Your task to perform on an android device: toggle sleep mode Image 0: 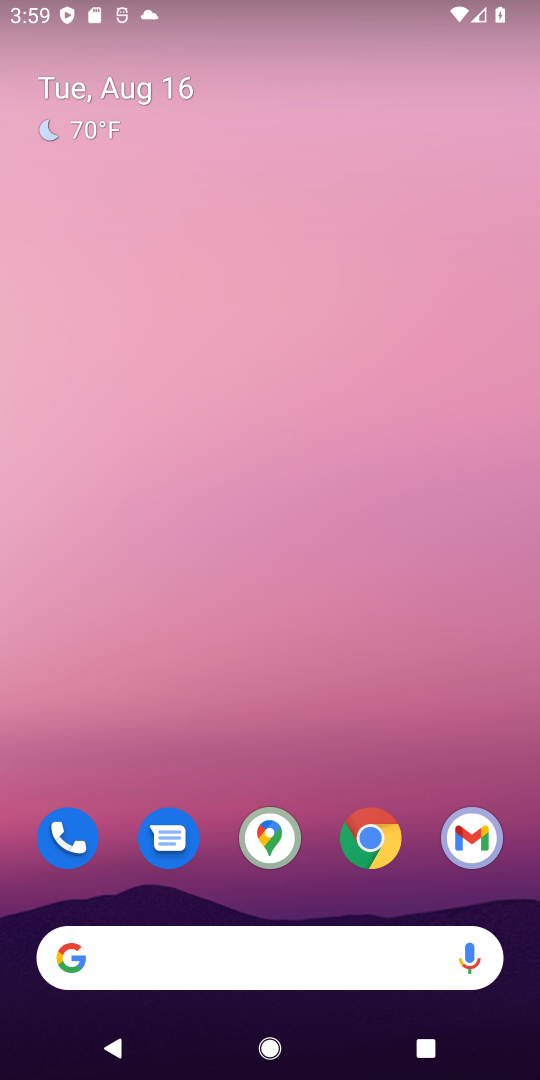
Step 0: drag from (332, 956) to (370, 82)
Your task to perform on an android device: toggle sleep mode Image 1: 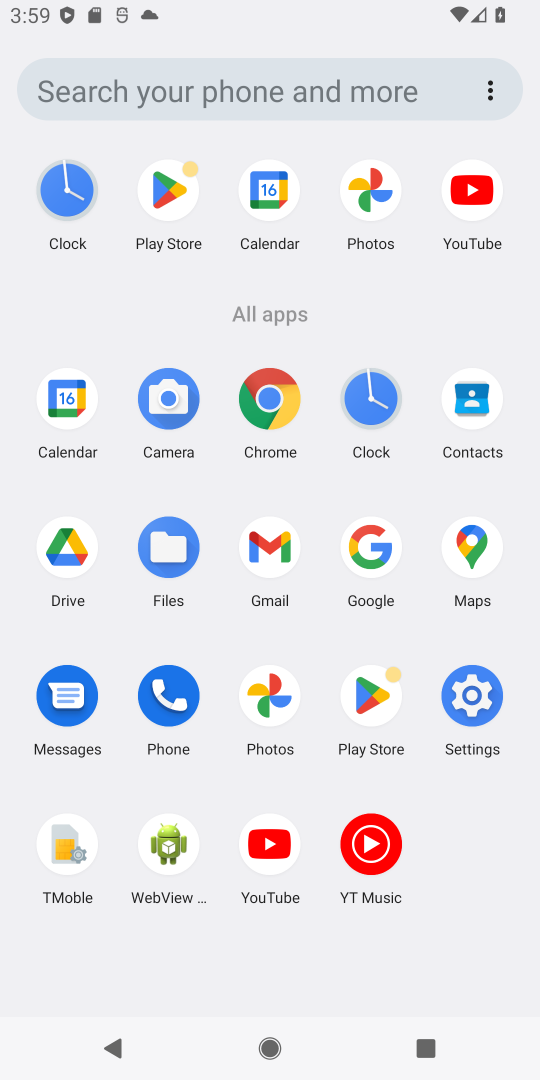
Step 1: click (465, 731)
Your task to perform on an android device: toggle sleep mode Image 2: 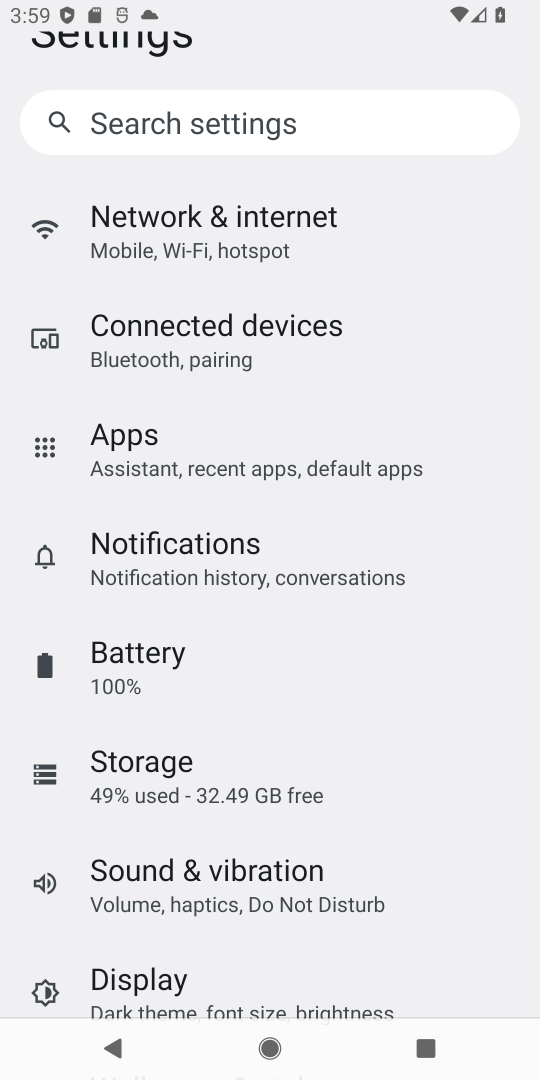
Step 2: click (174, 977)
Your task to perform on an android device: toggle sleep mode Image 3: 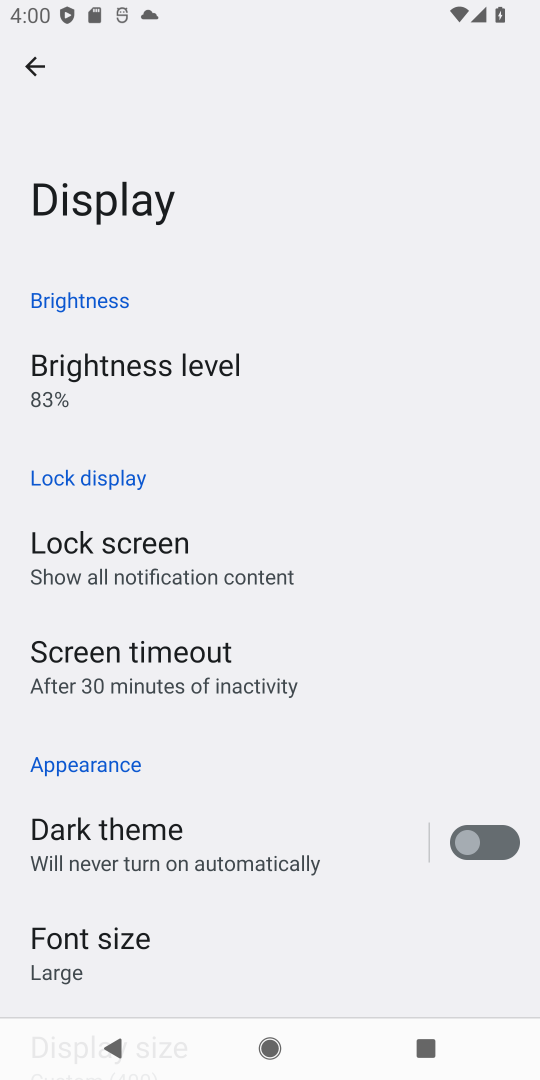
Step 3: task complete